Your task to perform on an android device: open a new tab in the chrome app Image 0: 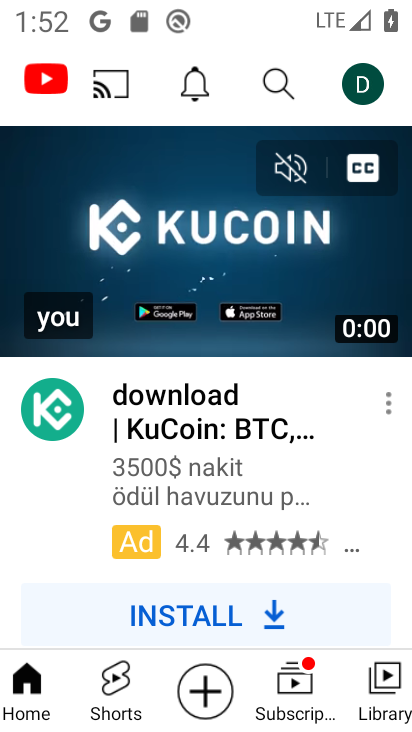
Step 0: press home button
Your task to perform on an android device: open a new tab in the chrome app Image 1: 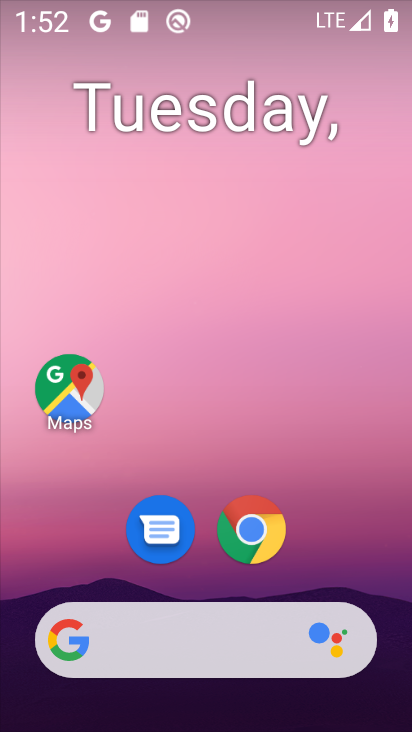
Step 1: click (253, 522)
Your task to perform on an android device: open a new tab in the chrome app Image 2: 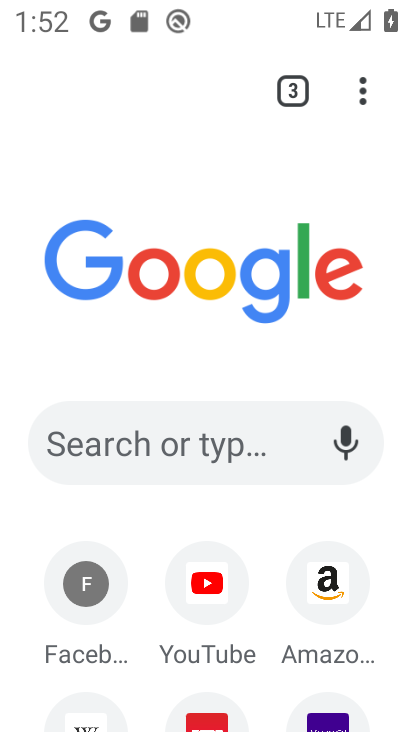
Step 2: click (355, 86)
Your task to perform on an android device: open a new tab in the chrome app Image 3: 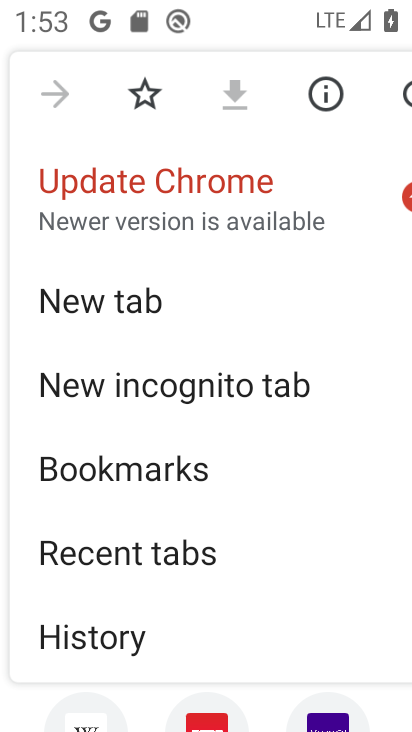
Step 3: click (125, 296)
Your task to perform on an android device: open a new tab in the chrome app Image 4: 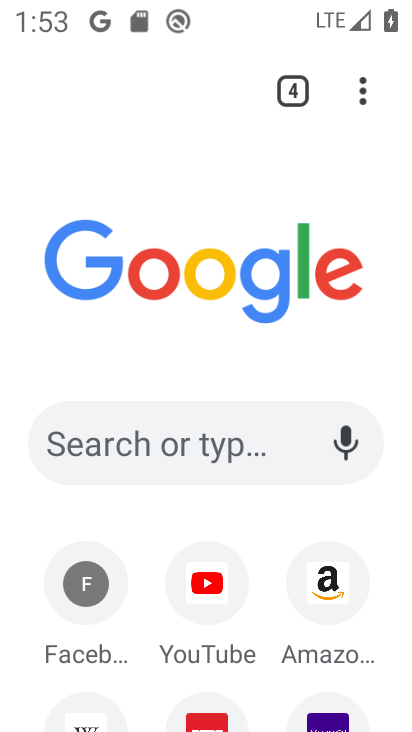
Step 4: task complete